Your task to perform on an android device: Open maps Image 0: 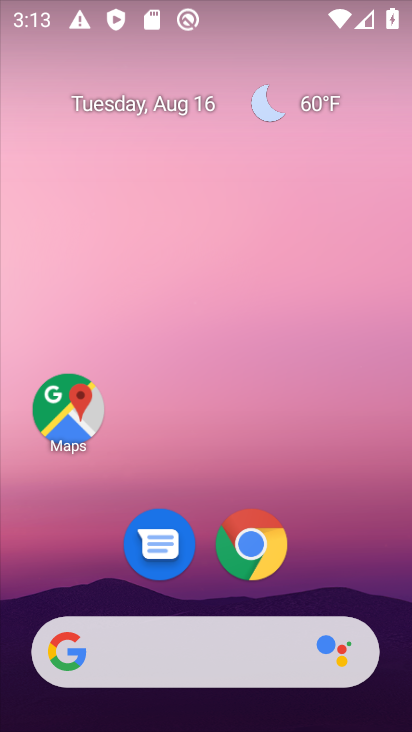
Step 0: drag from (338, 570) to (242, 9)
Your task to perform on an android device: Open maps Image 1: 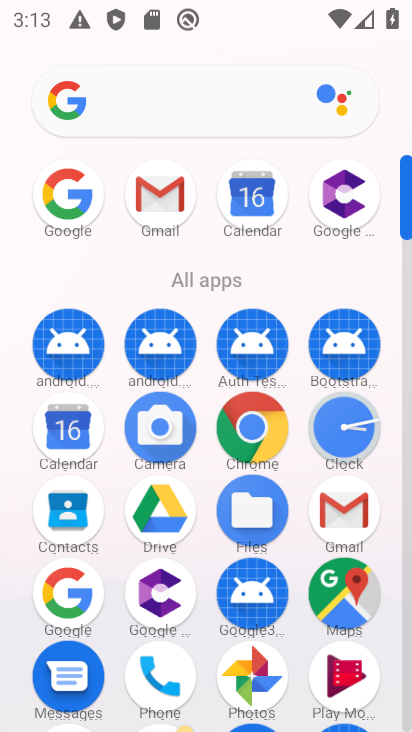
Step 1: click (342, 573)
Your task to perform on an android device: Open maps Image 2: 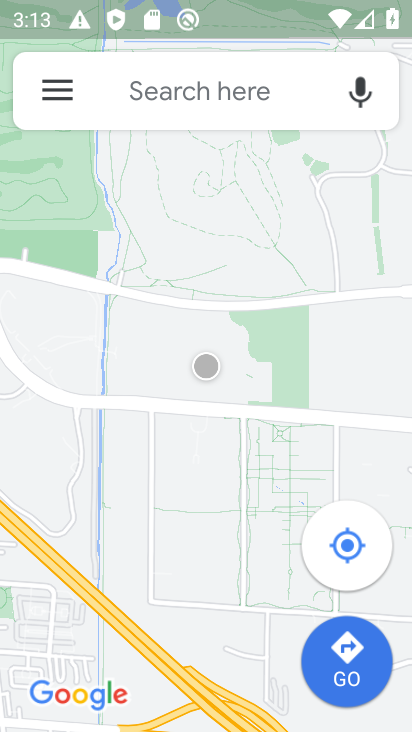
Step 2: task complete